Your task to perform on an android device: Open privacy settings Image 0: 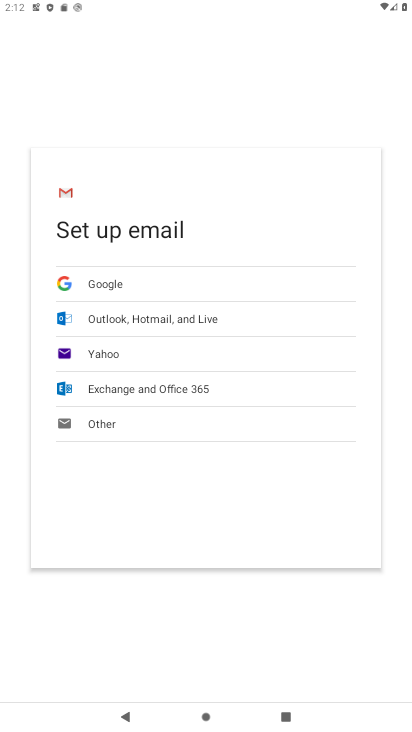
Step 0: press home button
Your task to perform on an android device: Open privacy settings Image 1: 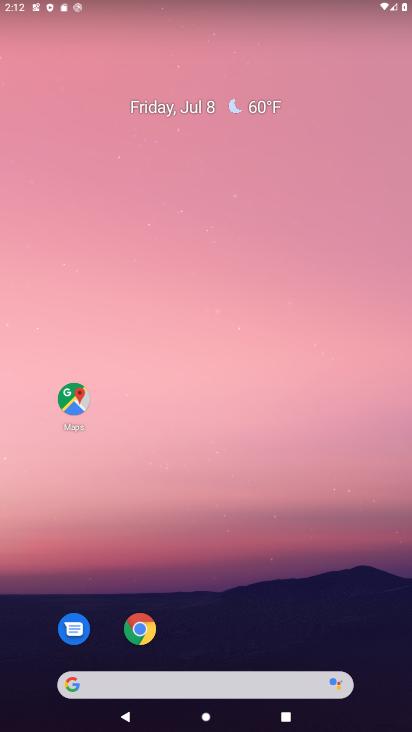
Step 1: drag from (210, 621) to (218, 153)
Your task to perform on an android device: Open privacy settings Image 2: 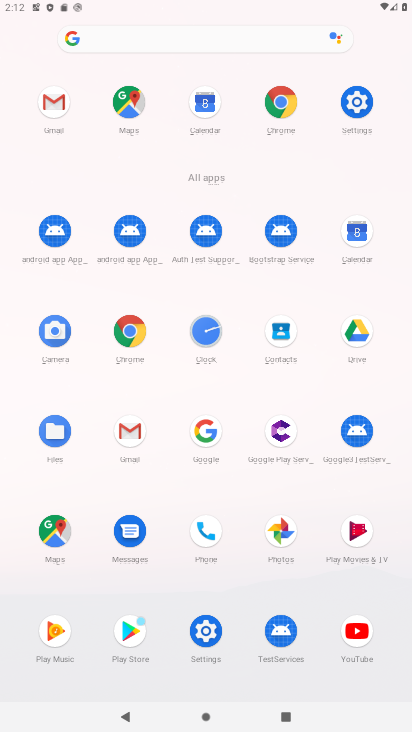
Step 2: click (349, 108)
Your task to perform on an android device: Open privacy settings Image 3: 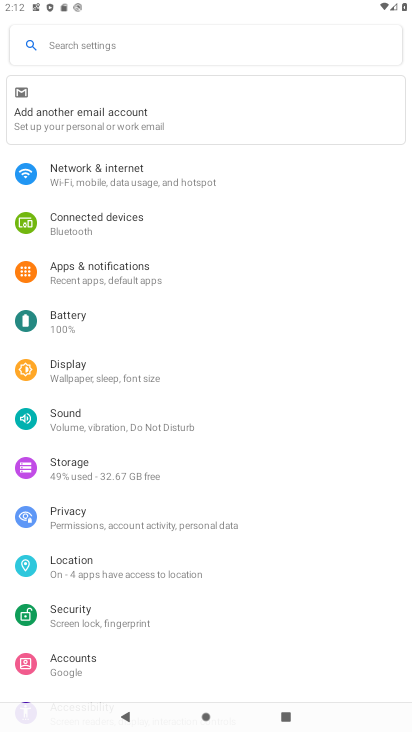
Step 3: click (106, 509)
Your task to perform on an android device: Open privacy settings Image 4: 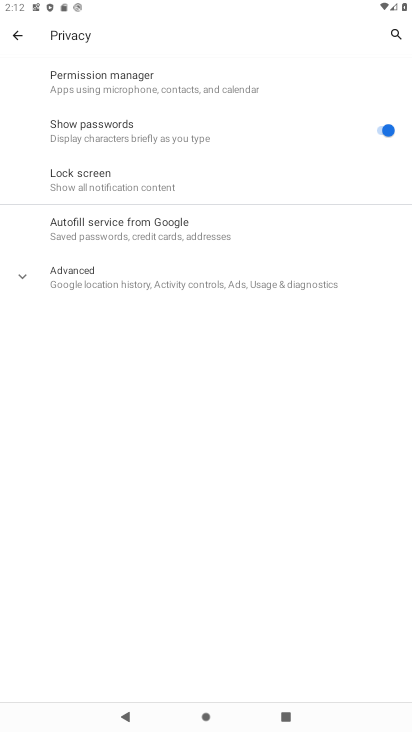
Step 4: task complete